Your task to perform on an android device: turn on javascript in the chrome app Image 0: 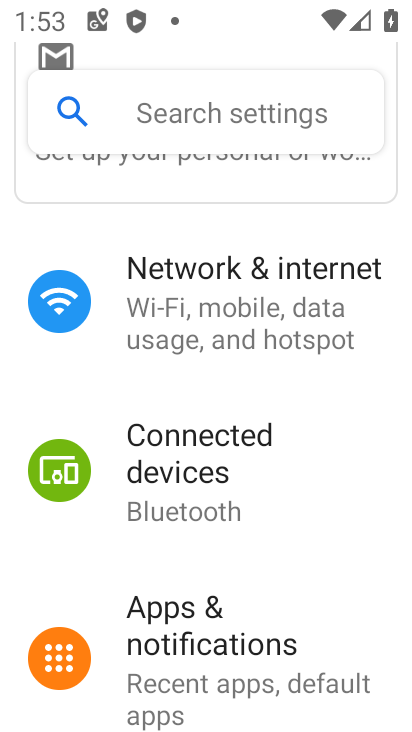
Step 0: press home button
Your task to perform on an android device: turn on javascript in the chrome app Image 1: 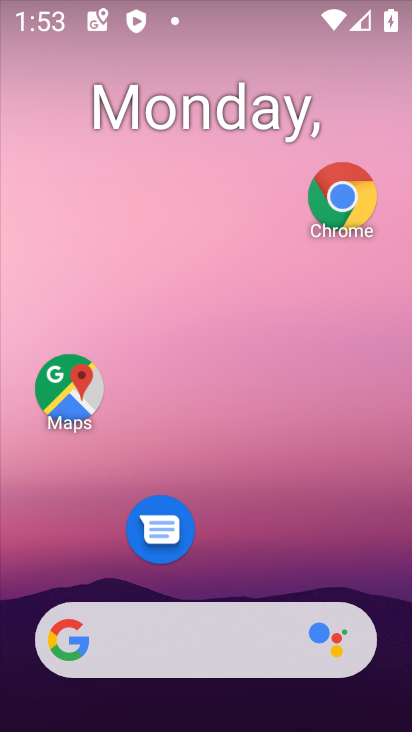
Step 1: click (347, 212)
Your task to perform on an android device: turn on javascript in the chrome app Image 2: 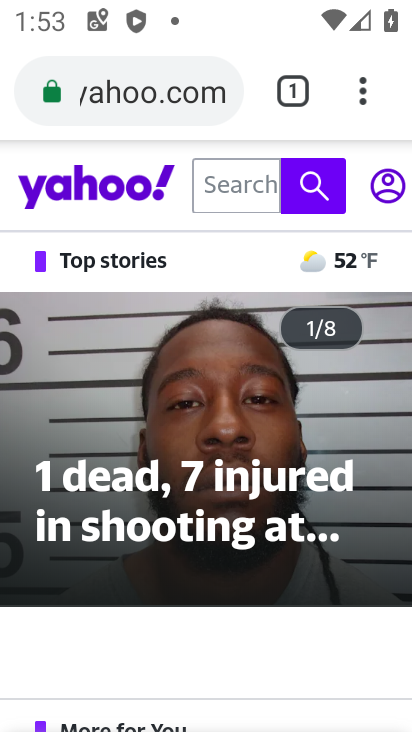
Step 2: click (351, 98)
Your task to perform on an android device: turn on javascript in the chrome app Image 3: 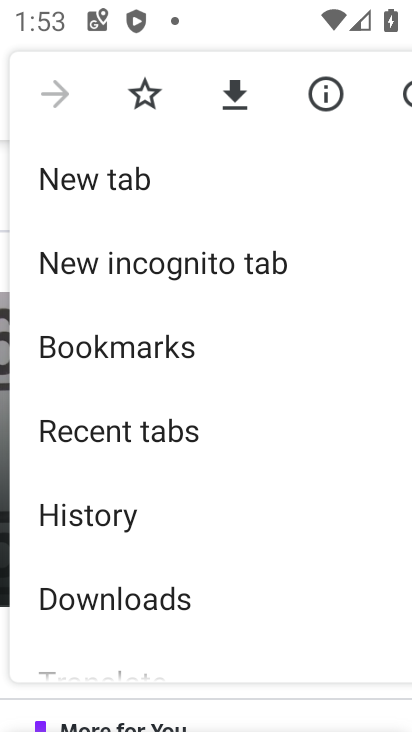
Step 3: drag from (236, 574) to (236, 82)
Your task to perform on an android device: turn on javascript in the chrome app Image 4: 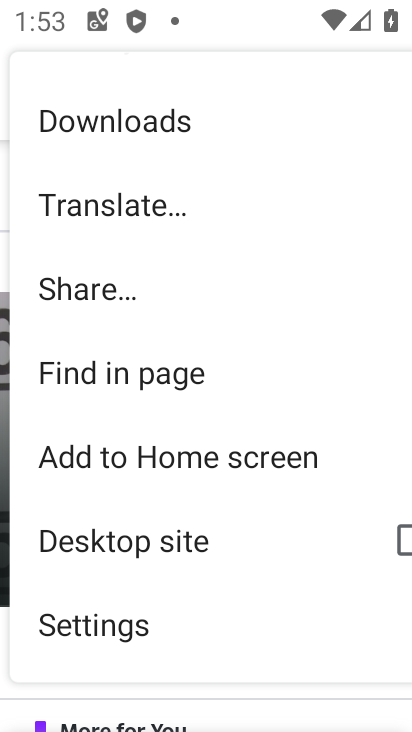
Step 4: click (133, 630)
Your task to perform on an android device: turn on javascript in the chrome app Image 5: 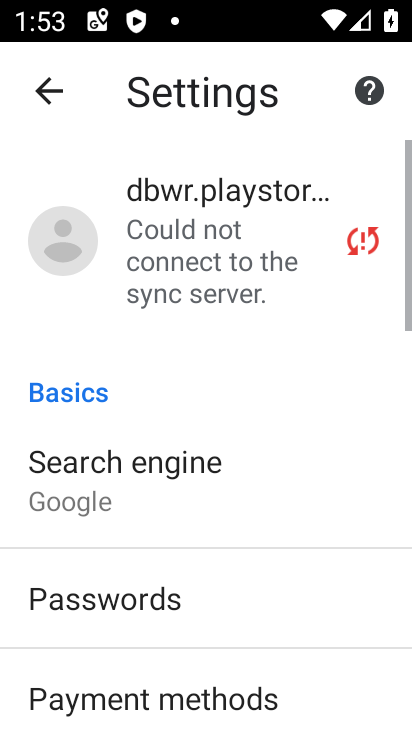
Step 5: drag from (133, 629) to (96, 268)
Your task to perform on an android device: turn on javascript in the chrome app Image 6: 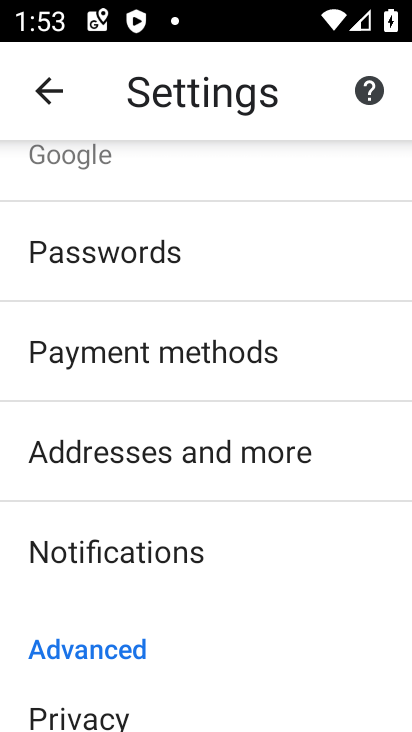
Step 6: drag from (185, 642) to (176, 188)
Your task to perform on an android device: turn on javascript in the chrome app Image 7: 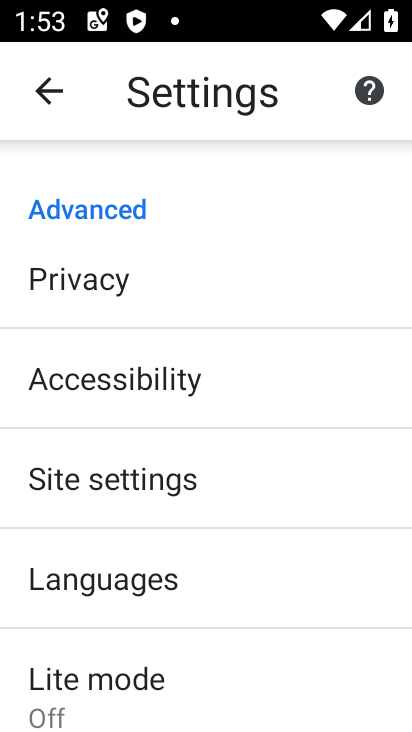
Step 7: click (123, 470)
Your task to perform on an android device: turn on javascript in the chrome app Image 8: 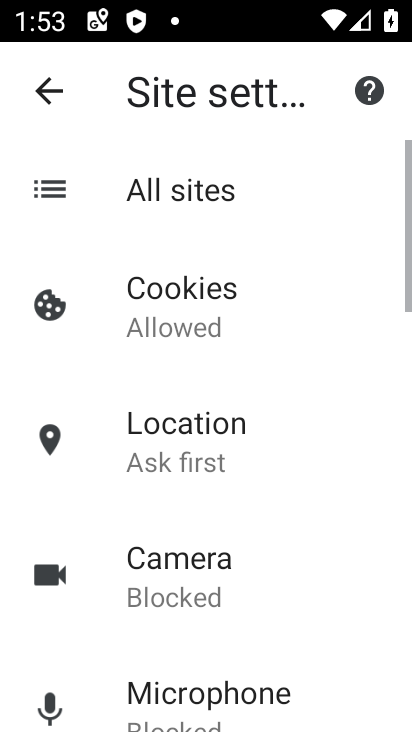
Step 8: drag from (198, 689) to (196, 179)
Your task to perform on an android device: turn on javascript in the chrome app Image 9: 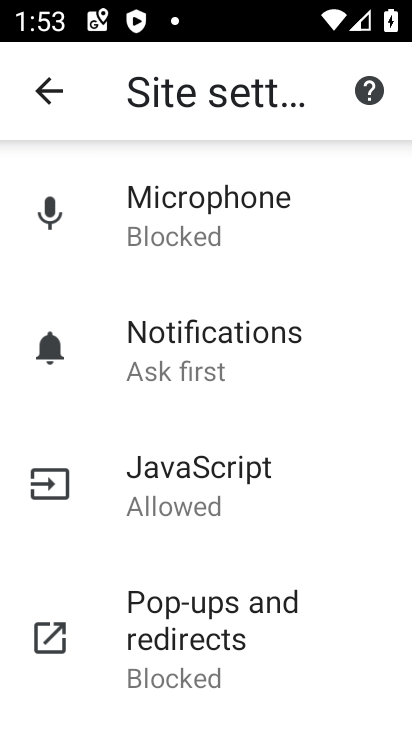
Step 9: click (206, 473)
Your task to perform on an android device: turn on javascript in the chrome app Image 10: 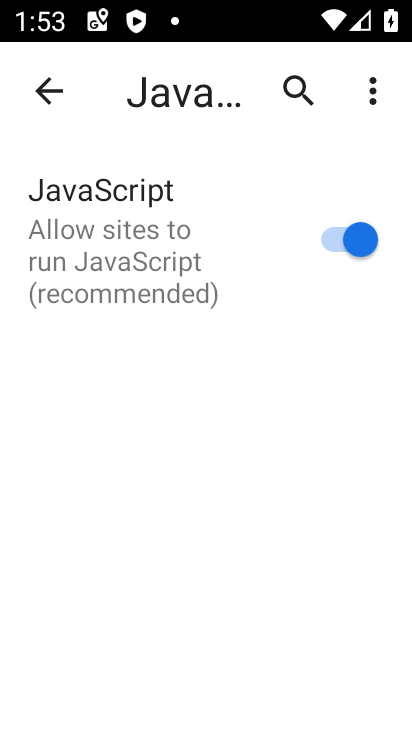
Step 10: task complete